Your task to perform on an android device: turn on the 24-hour format for clock Image 0: 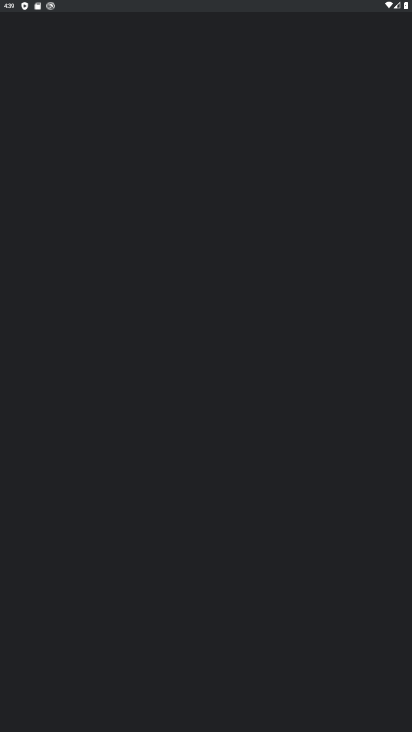
Step 0: press home button
Your task to perform on an android device: turn on the 24-hour format for clock Image 1: 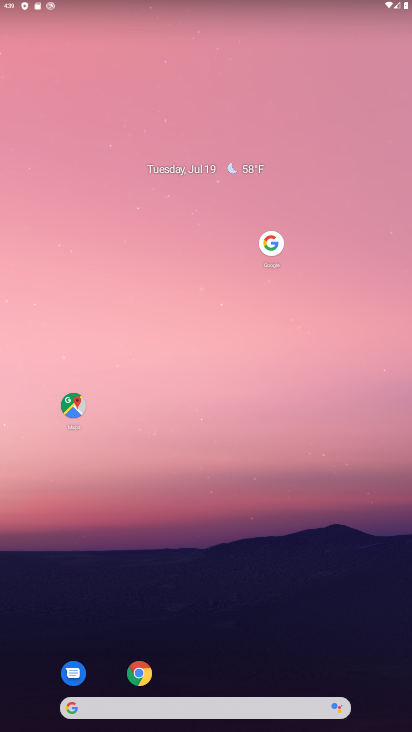
Step 1: drag from (211, 618) to (251, 90)
Your task to perform on an android device: turn on the 24-hour format for clock Image 2: 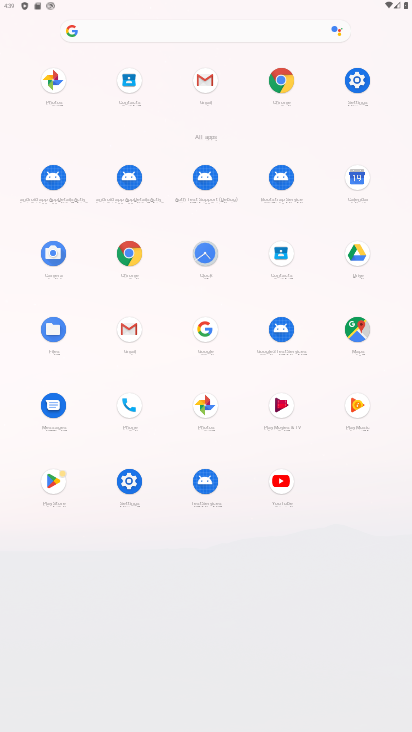
Step 2: click (204, 250)
Your task to perform on an android device: turn on the 24-hour format for clock Image 3: 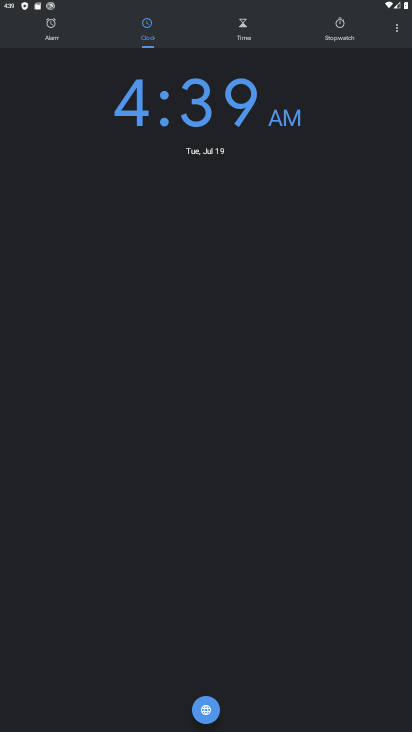
Step 3: click (396, 31)
Your task to perform on an android device: turn on the 24-hour format for clock Image 4: 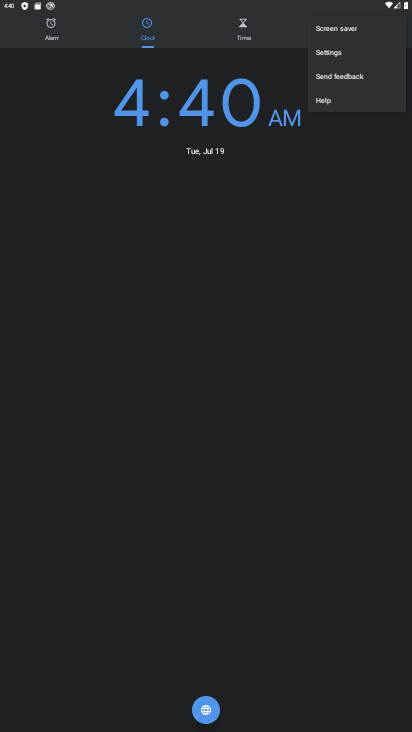
Step 4: click (340, 53)
Your task to perform on an android device: turn on the 24-hour format for clock Image 5: 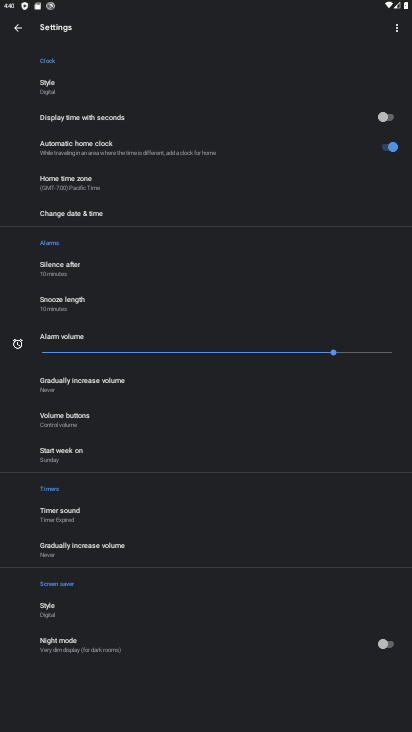
Step 5: click (95, 216)
Your task to perform on an android device: turn on the 24-hour format for clock Image 6: 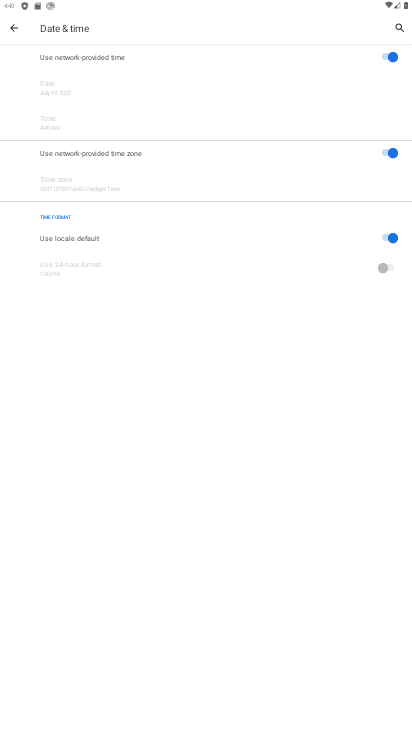
Step 6: click (394, 235)
Your task to perform on an android device: turn on the 24-hour format for clock Image 7: 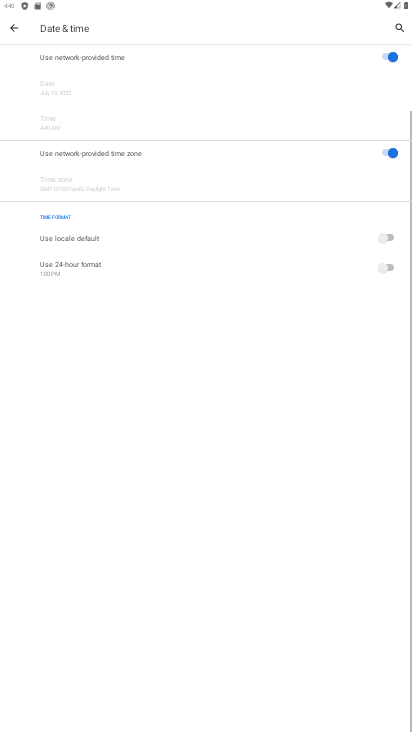
Step 7: click (389, 263)
Your task to perform on an android device: turn on the 24-hour format for clock Image 8: 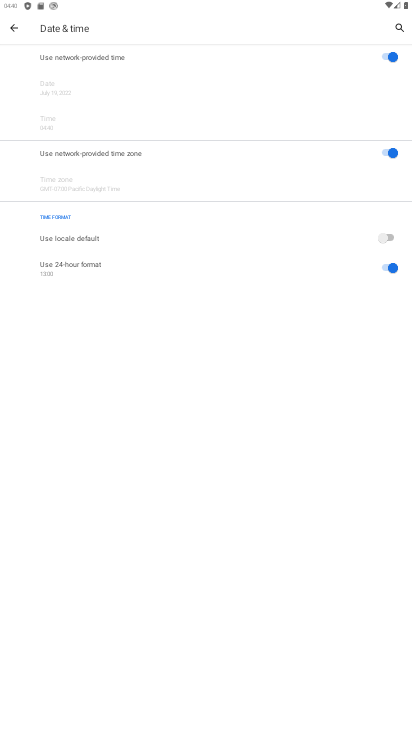
Step 8: task complete